Your task to perform on an android device: open app "Skype" (install if not already installed) Image 0: 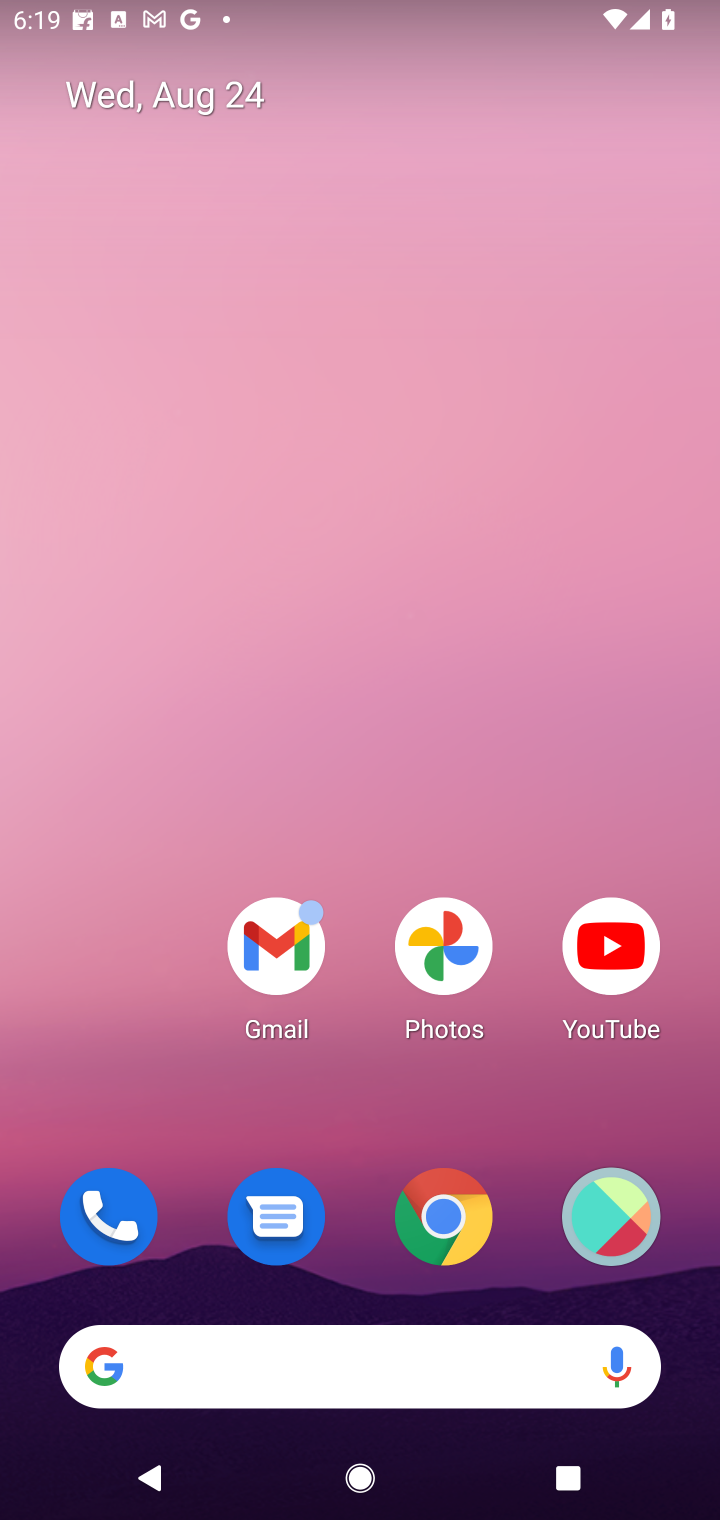
Step 0: click (392, 227)
Your task to perform on an android device: open app "Skype" (install if not already installed) Image 1: 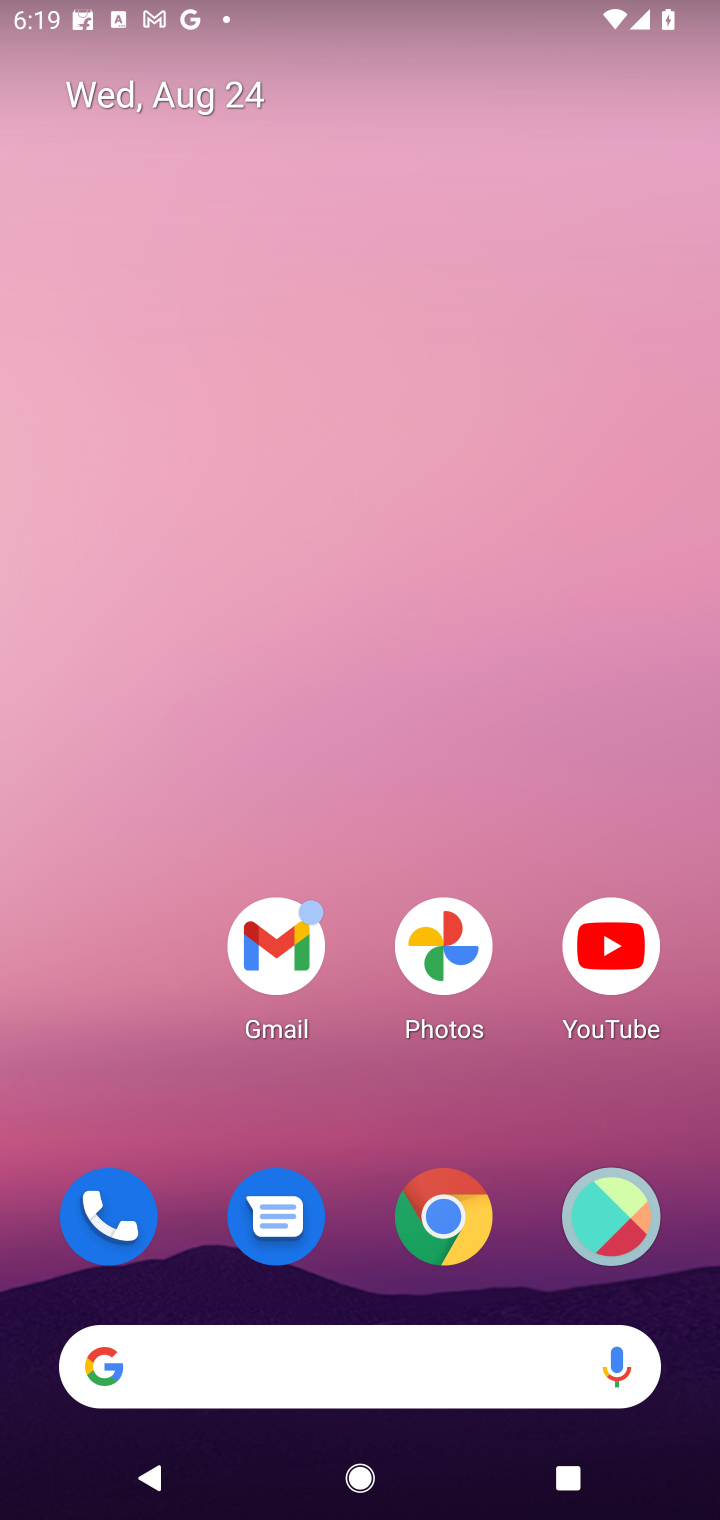
Step 1: drag from (345, 1127) to (447, 307)
Your task to perform on an android device: open app "Skype" (install if not already installed) Image 2: 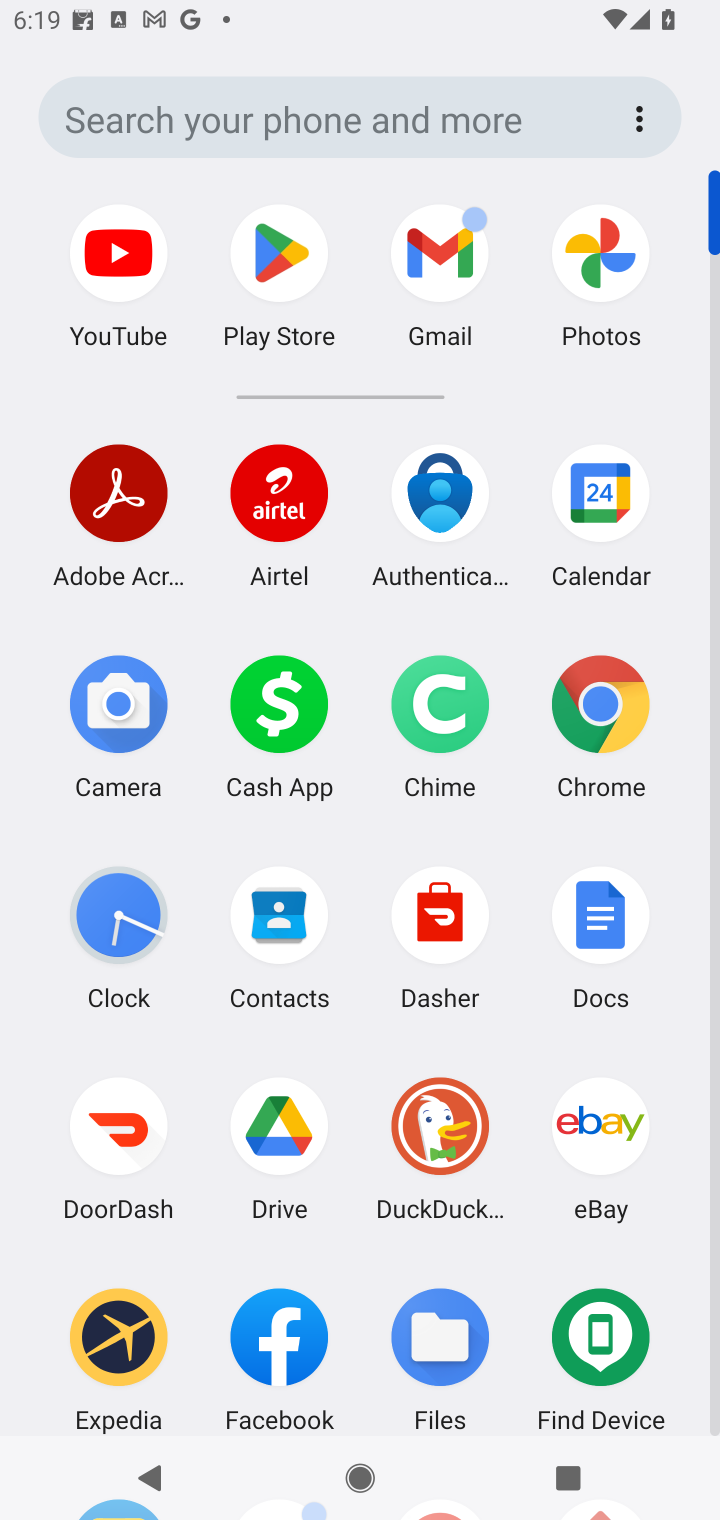
Step 2: click (310, 238)
Your task to perform on an android device: open app "Skype" (install if not already installed) Image 3: 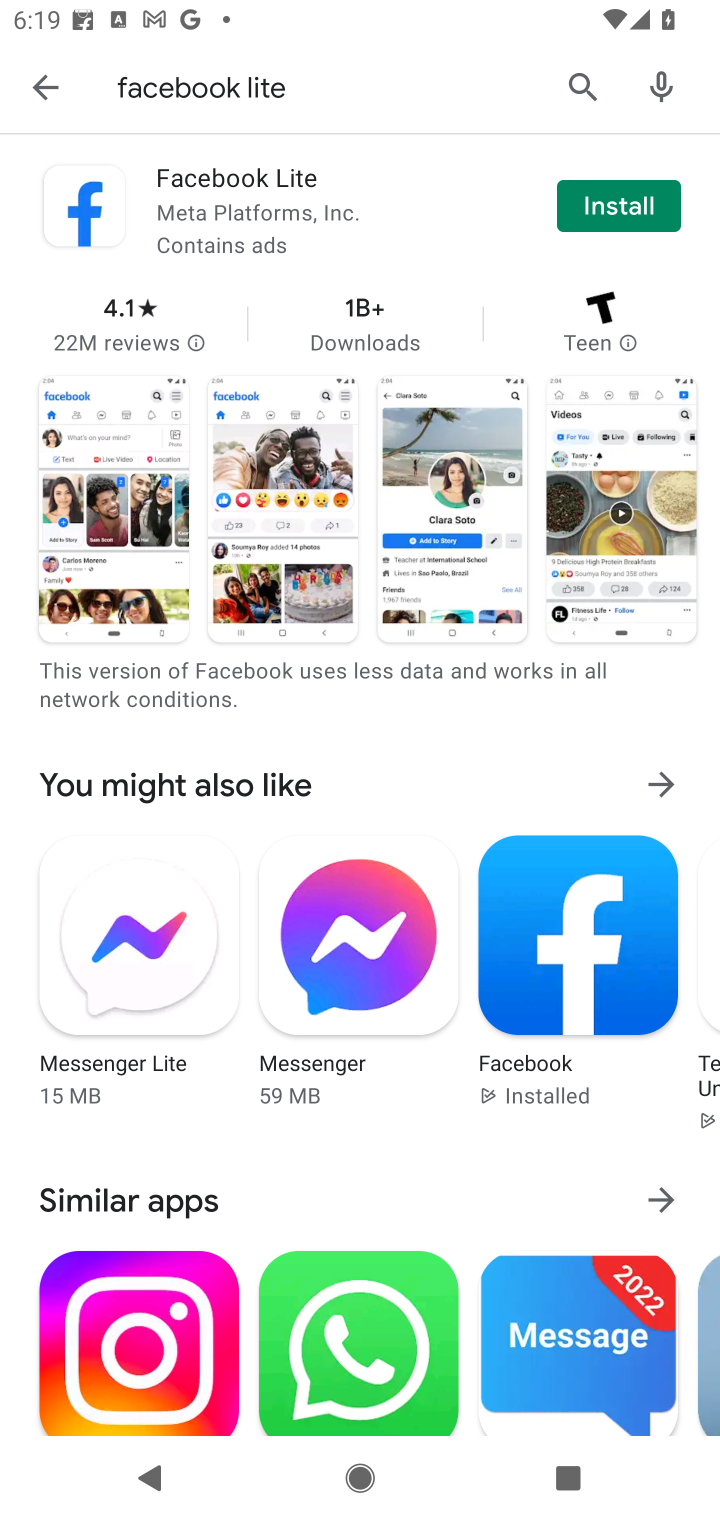
Step 3: click (596, 76)
Your task to perform on an android device: open app "Skype" (install if not already installed) Image 4: 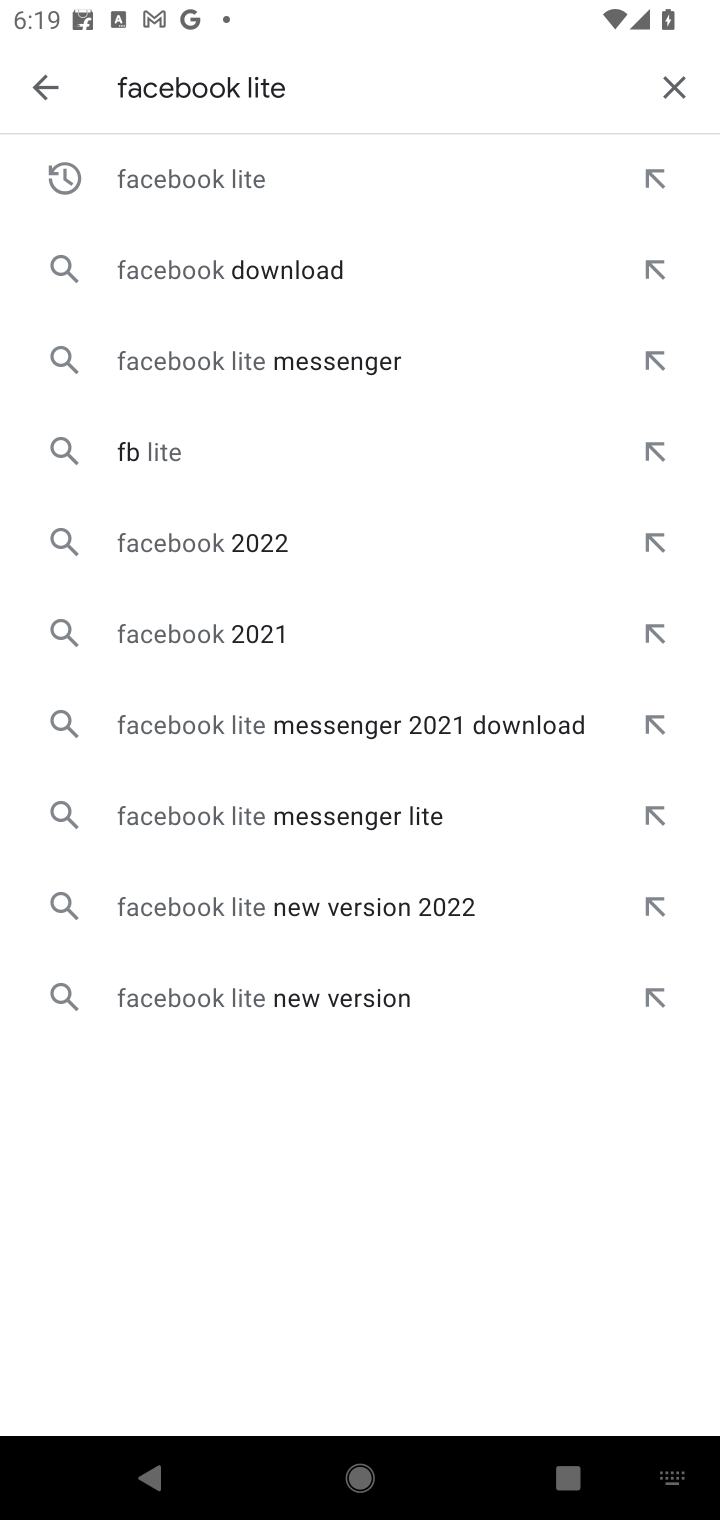
Step 4: click (680, 78)
Your task to perform on an android device: open app "Skype" (install if not already installed) Image 5: 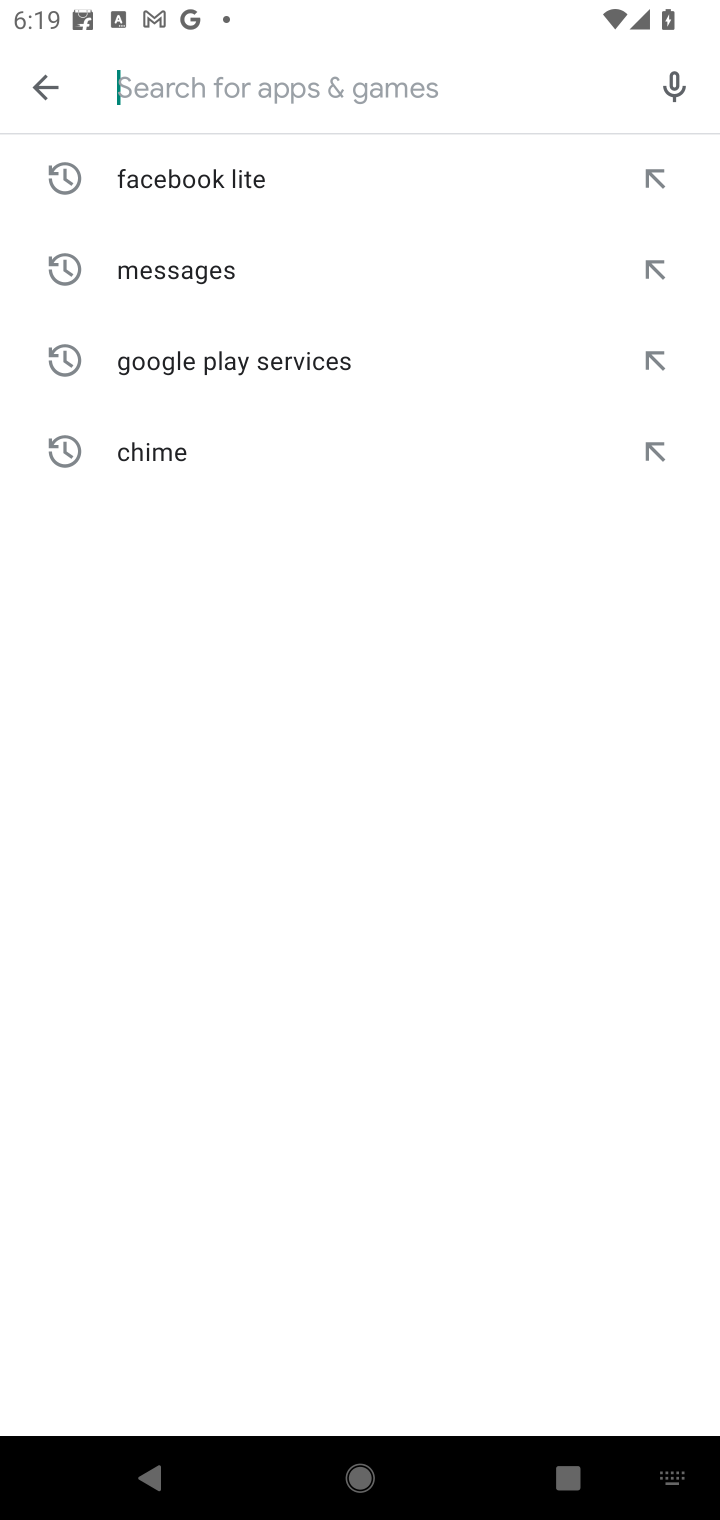
Step 5: type "Skype"
Your task to perform on an android device: open app "Skype" (install if not already installed) Image 6: 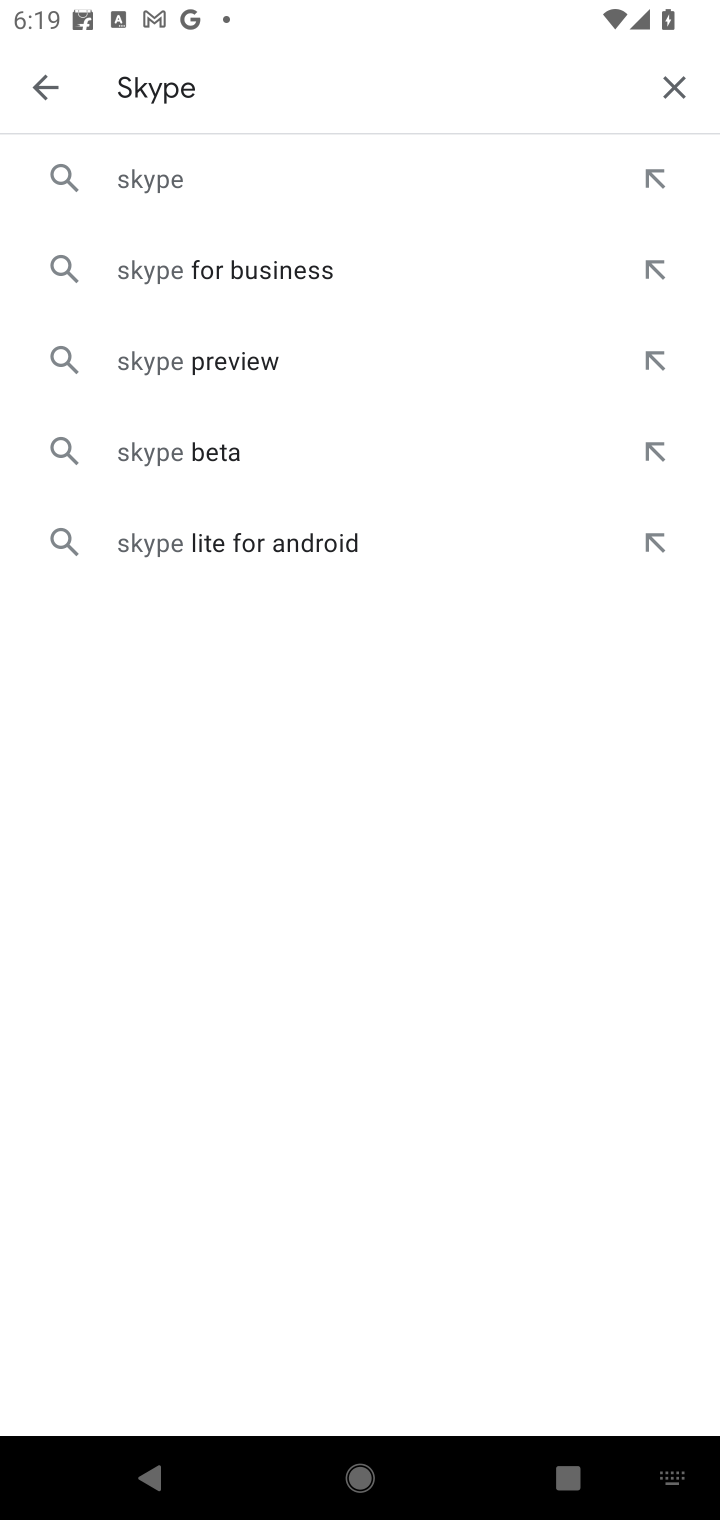
Step 6: click (177, 165)
Your task to perform on an android device: open app "Skype" (install if not already installed) Image 7: 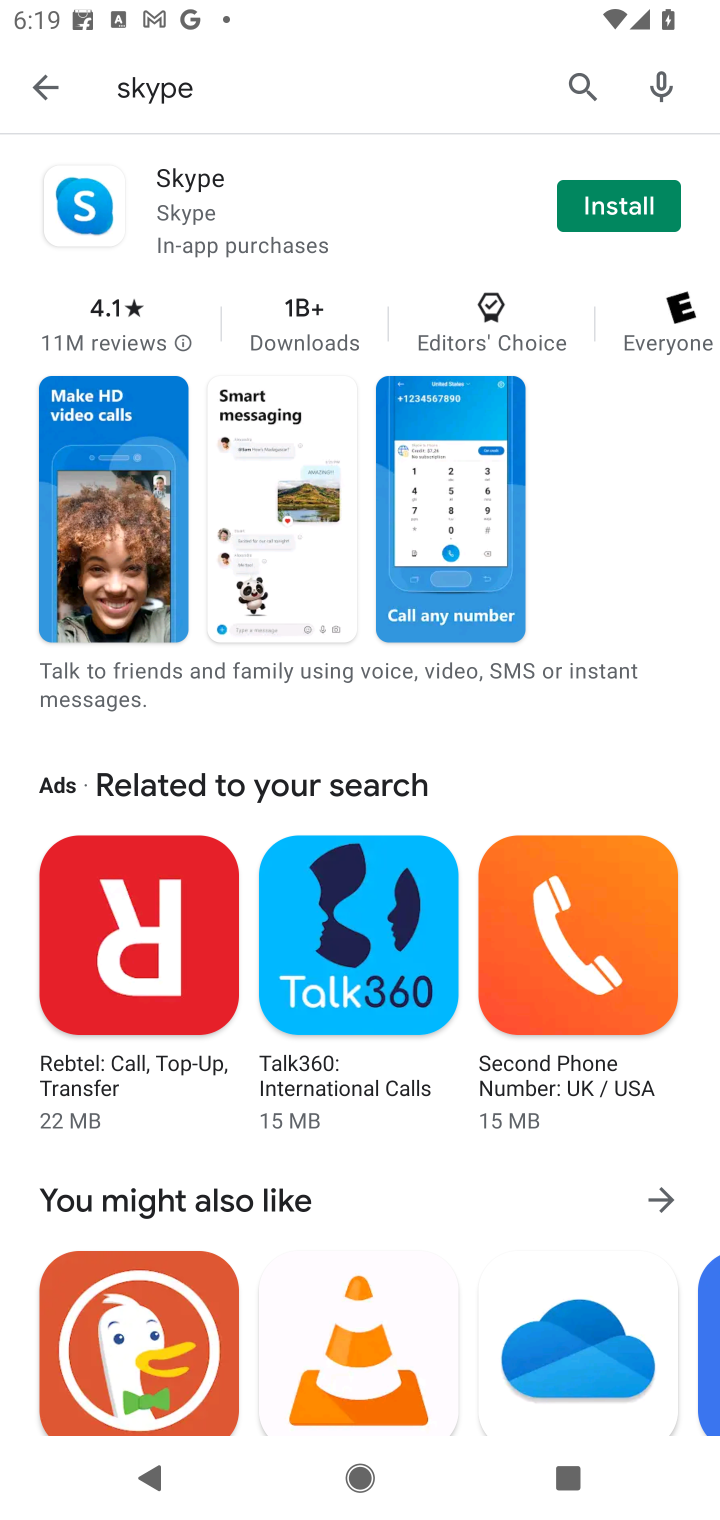
Step 7: click (663, 198)
Your task to perform on an android device: open app "Skype" (install if not already installed) Image 8: 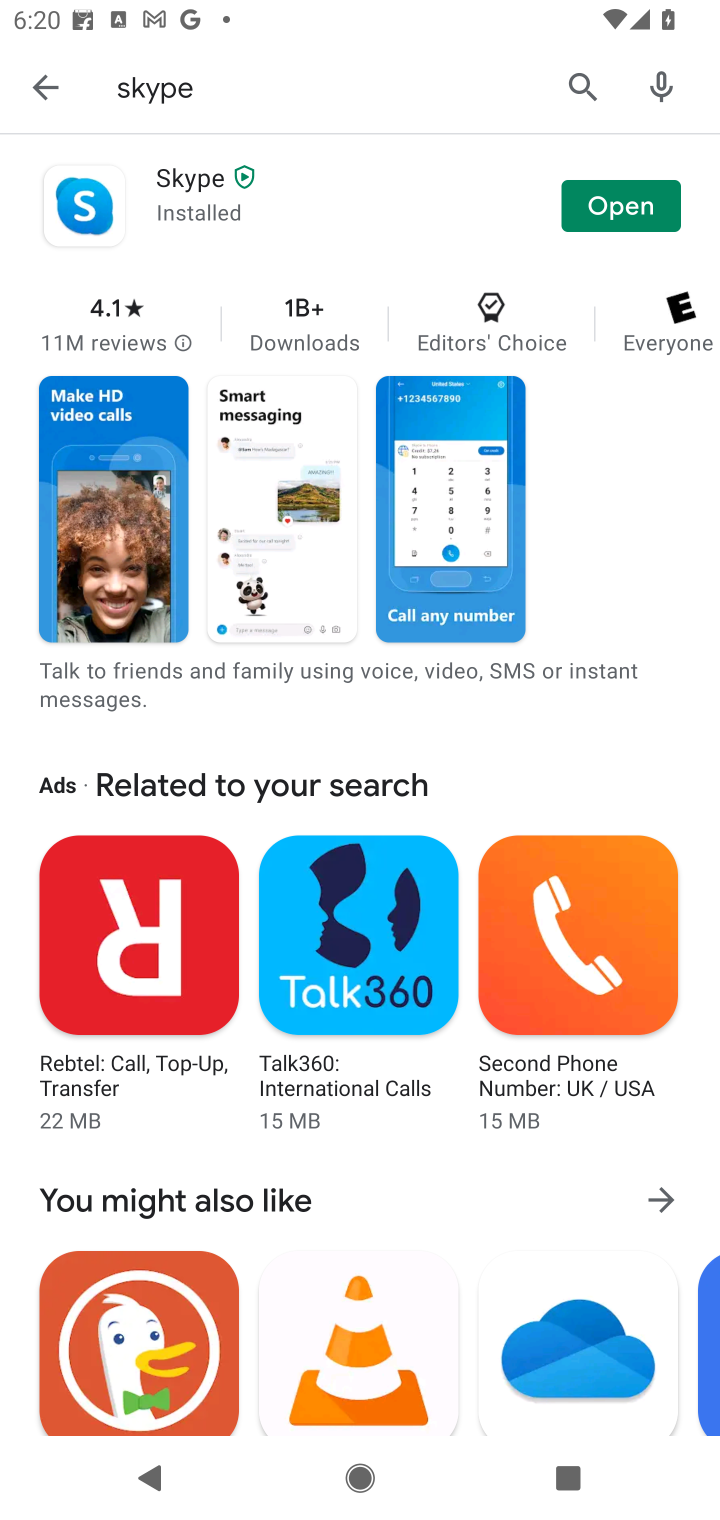
Step 8: click (663, 198)
Your task to perform on an android device: open app "Skype" (install if not already installed) Image 9: 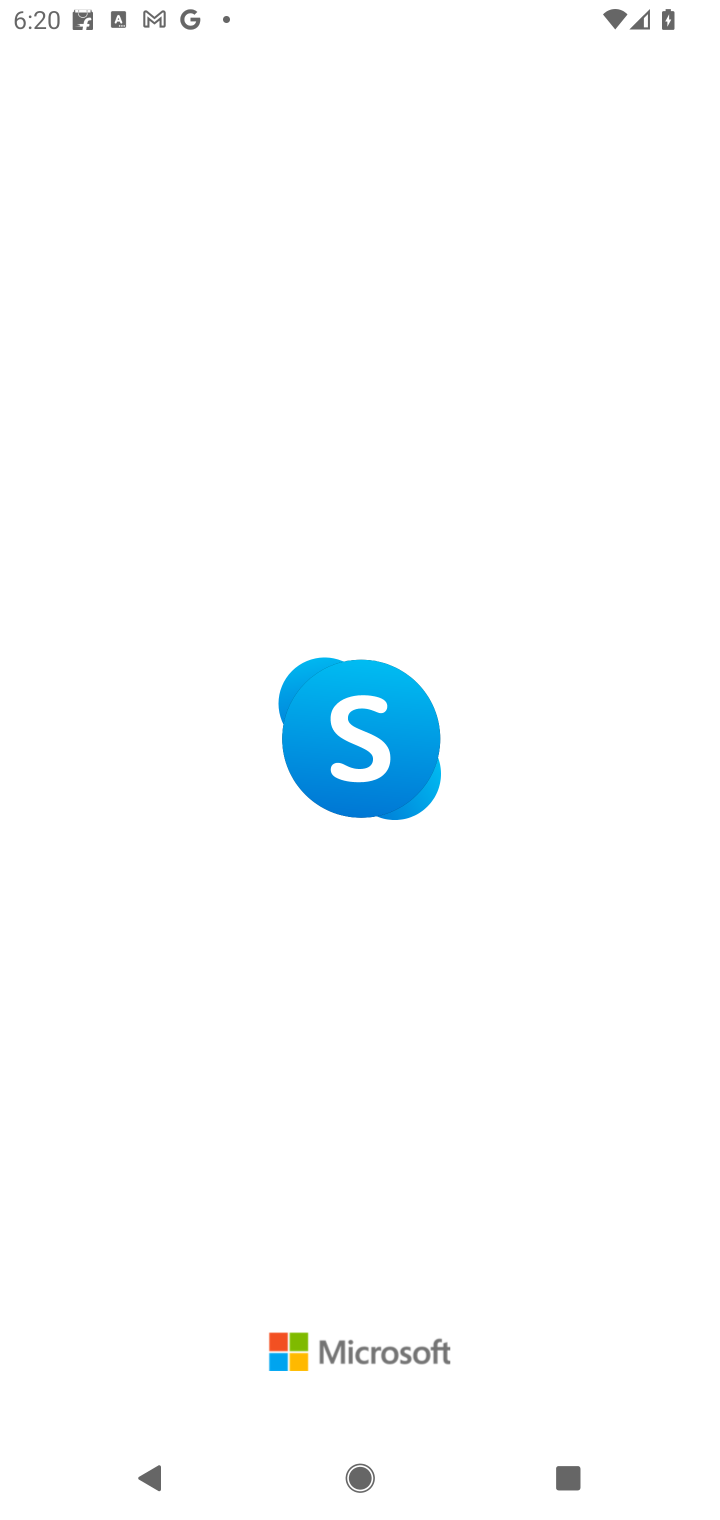
Step 9: task complete